Your task to perform on an android device: open app "Booking.com: Hotels and more" Image 0: 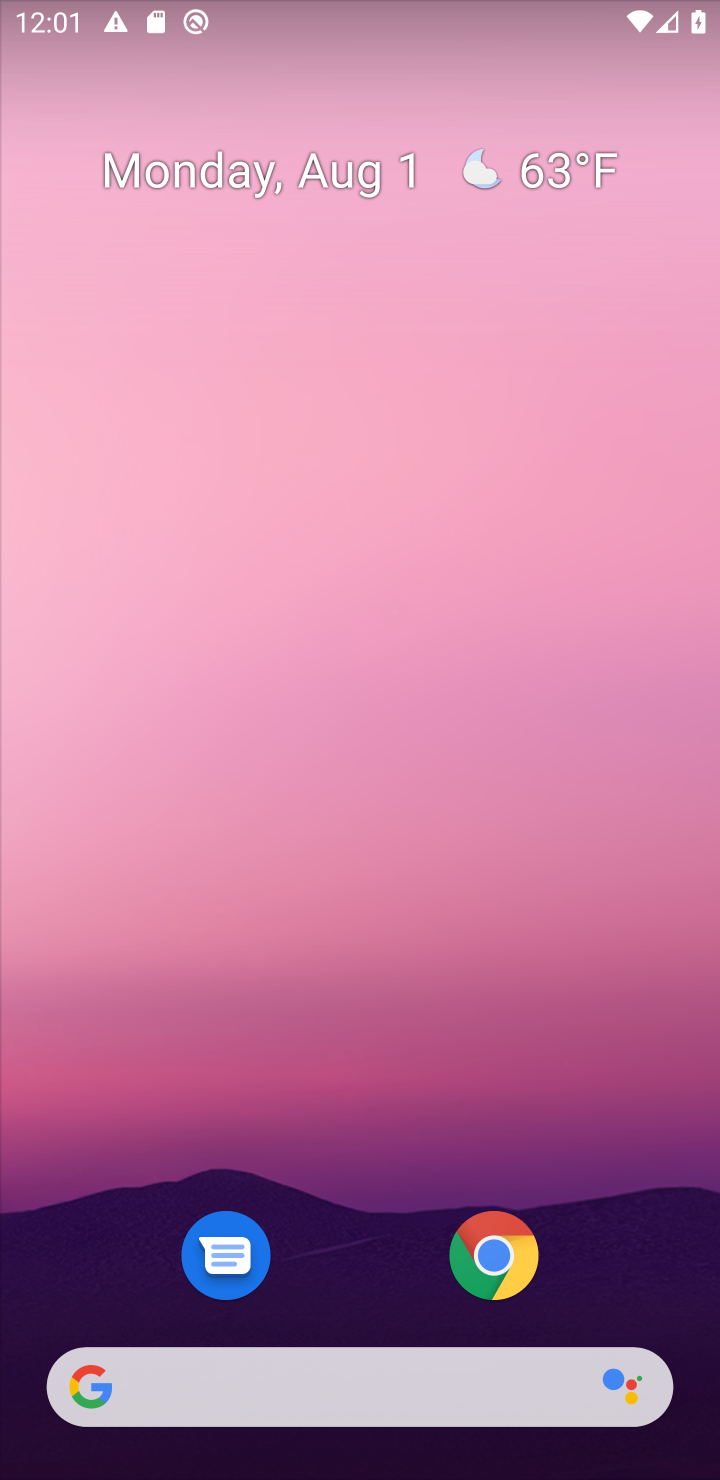
Step 0: drag from (524, 1148) to (458, 329)
Your task to perform on an android device: open app "Booking.com: Hotels and more" Image 1: 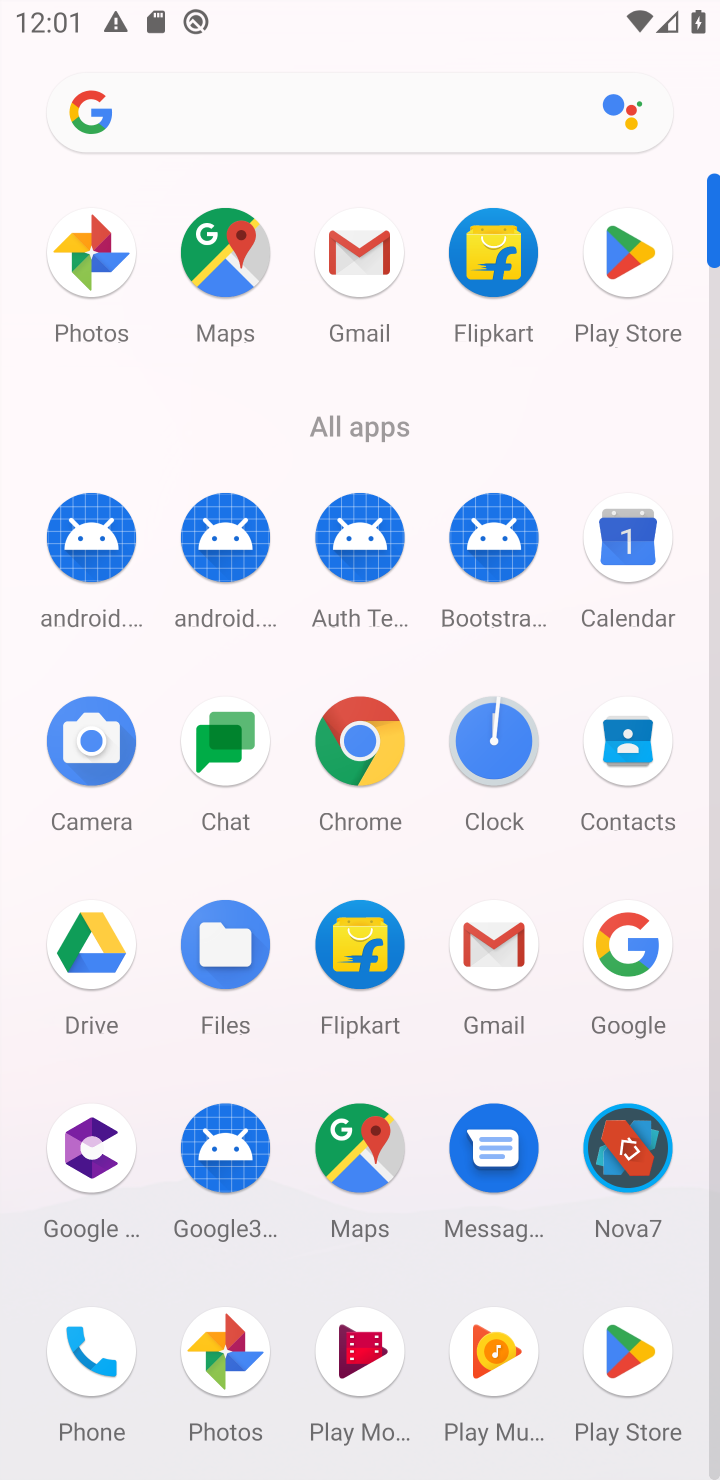
Step 1: click (625, 256)
Your task to perform on an android device: open app "Booking.com: Hotels and more" Image 2: 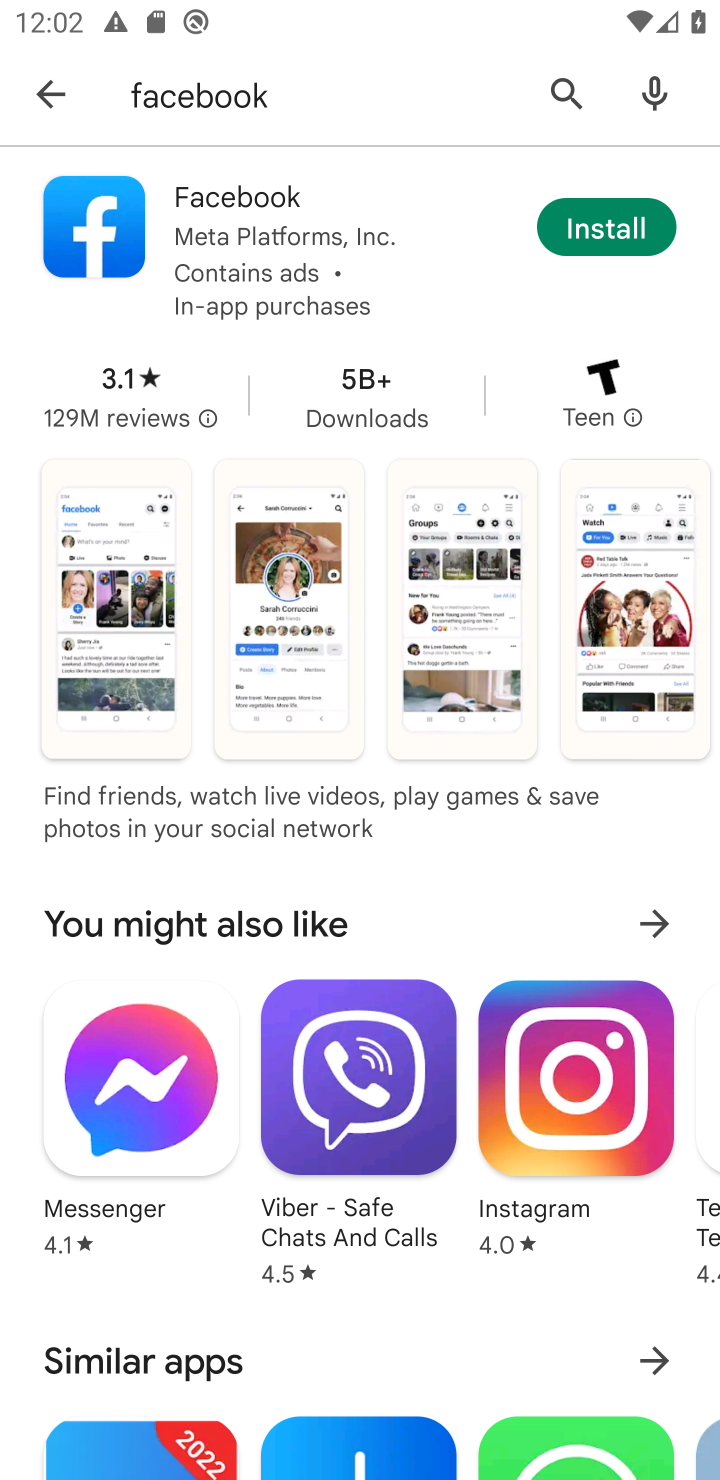
Step 2: click (573, 101)
Your task to perform on an android device: open app "Booking.com: Hotels and more" Image 3: 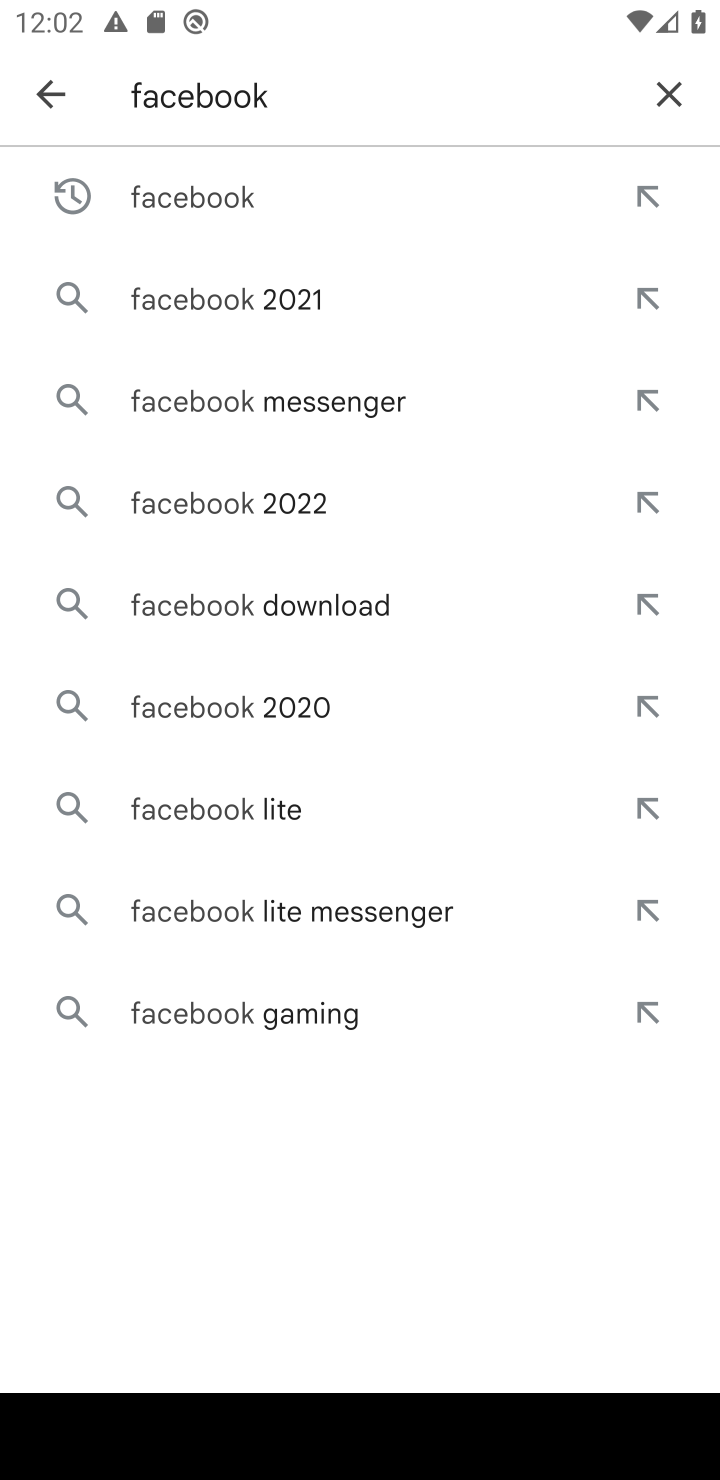
Step 3: click (668, 94)
Your task to perform on an android device: open app "Booking.com: Hotels and more" Image 4: 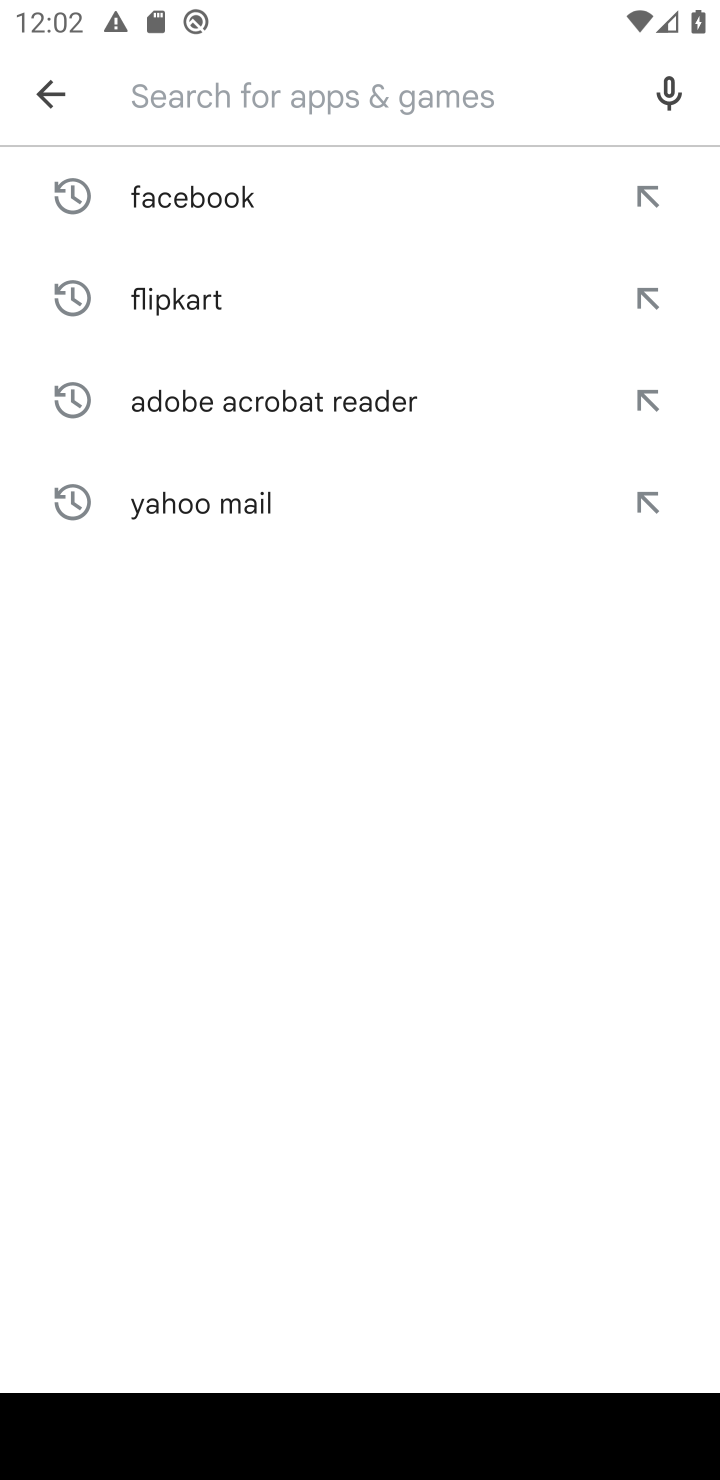
Step 4: type "booking.com"
Your task to perform on an android device: open app "Booking.com: Hotels and more" Image 5: 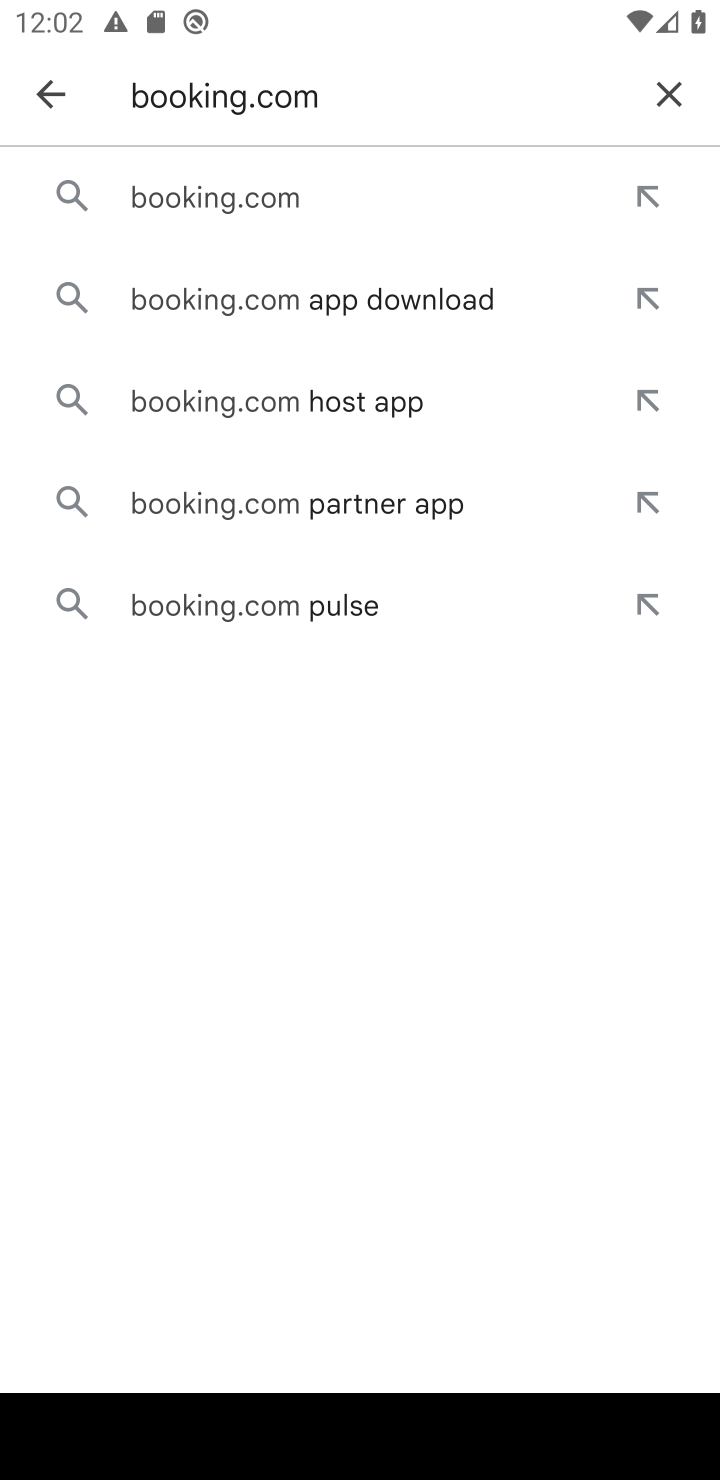
Step 5: click (275, 186)
Your task to perform on an android device: open app "Booking.com: Hotels and more" Image 6: 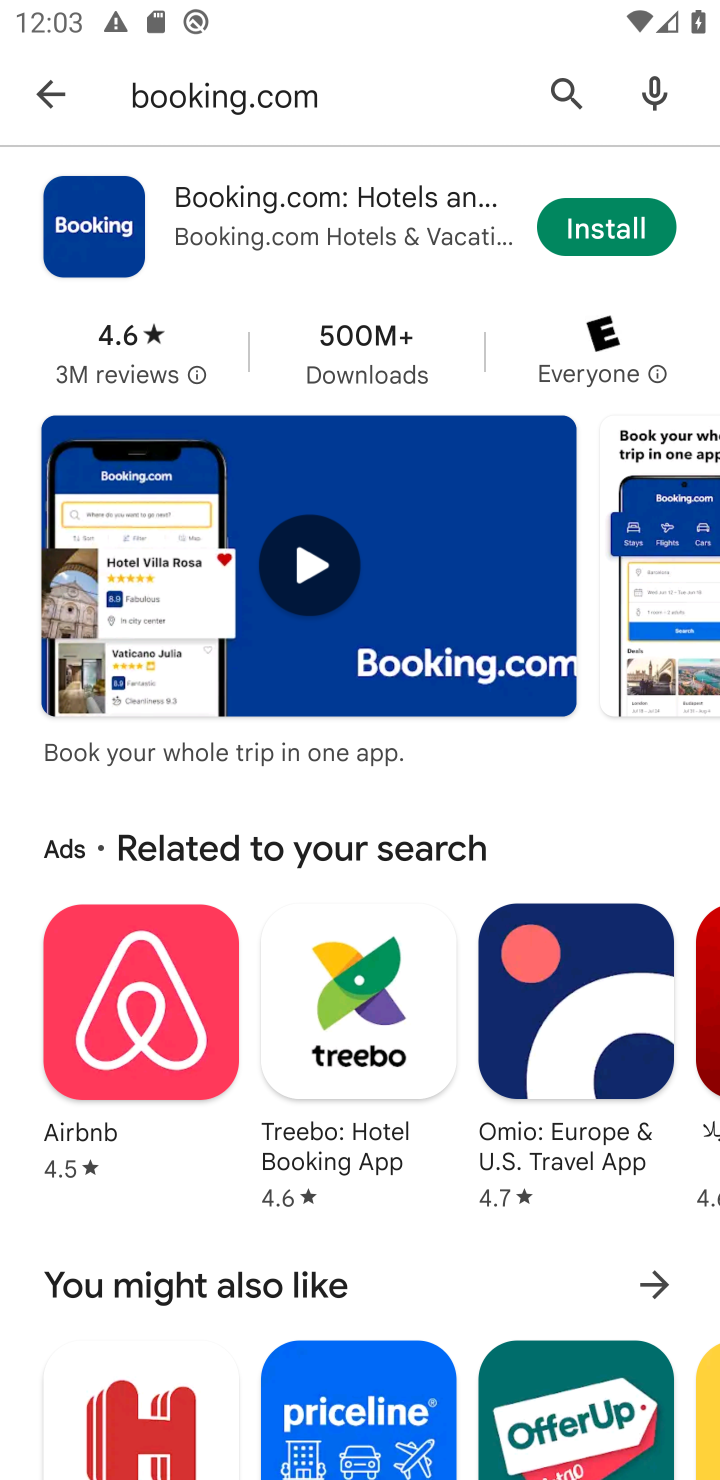
Step 6: task complete